Your task to perform on an android device: Turn off the flashlight Image 0: 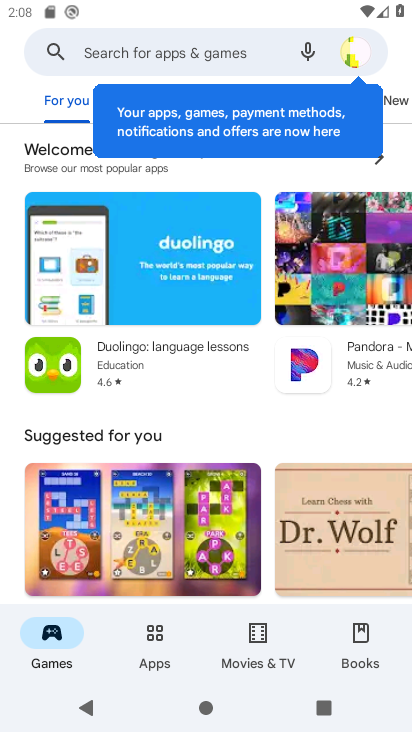
Step 0: press home button
Your task to perform on an android device: Turn off the flashlight Image 1: 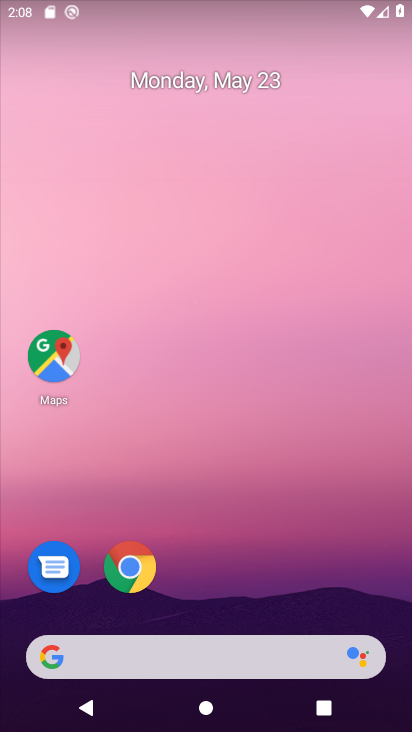
Step 1: drag from (223, 601) to (196, 51)
Your task to perform on an android device: Turn off the flashlight Image 2: 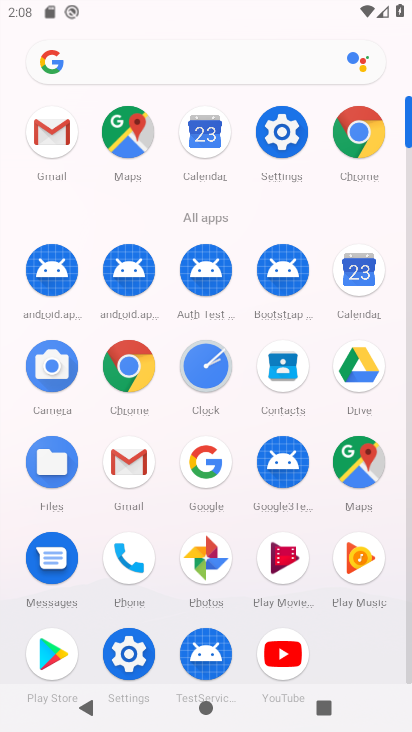
Step 2: click (258, 131)
Your task to perform on an android device: Turn off the flashlight Image 3: 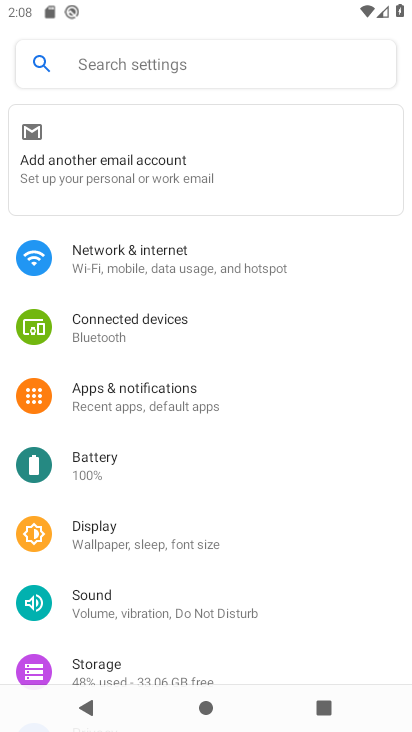
Step 3: task complete